Your task to perform on an android device: find photos in the google photos app Image 0: 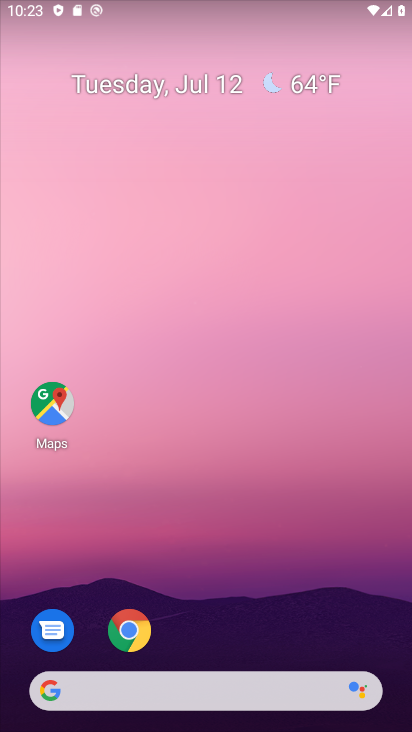
Step 0: drag from (374, 635) to (375, 104)
Your task to perform on an android device: find photos in the google photos app Image 1: 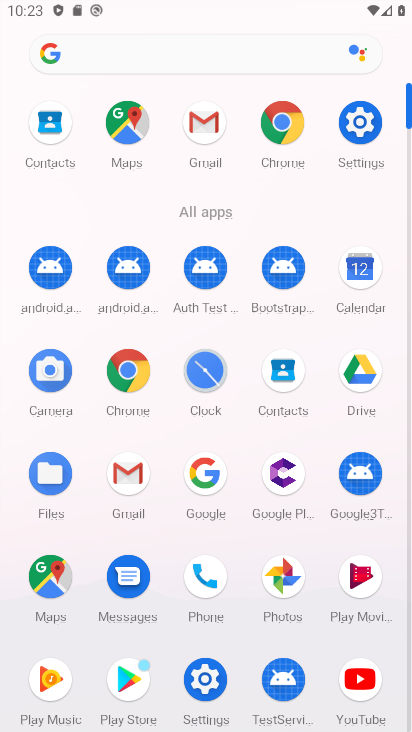
Step 1: click (287, 572)
Your task to perform on an android device: find photos in the google photos app Image 2: 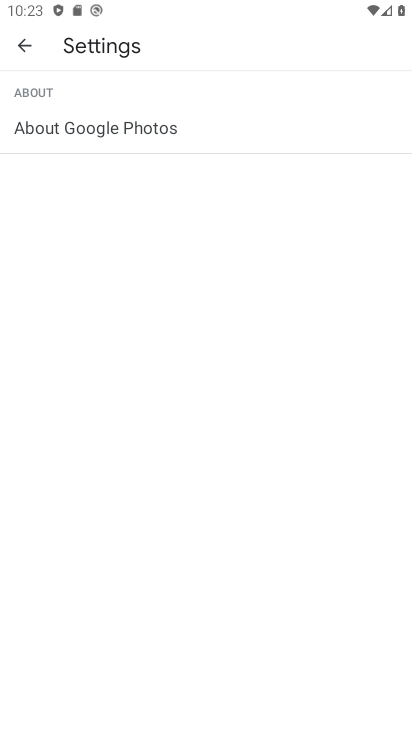
Step 2: press back button
Your task to perform on an android device: find photos in the google photos app Image 3: 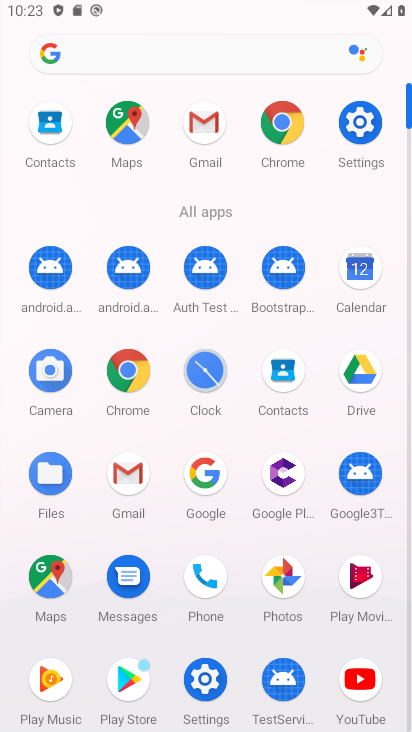
Step 3: click (280, 584)
Your task to perform on an android device: find photos in the google photos app Image 4: 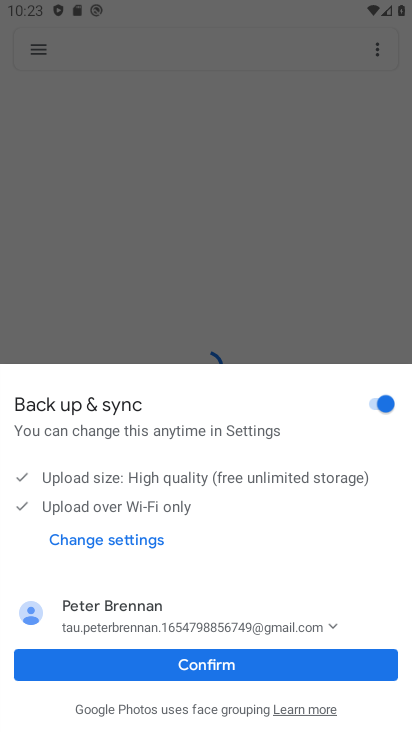
Step 4: click (325, 667)
Your task to perform on an android device: find photos in the google photos app Image 5: 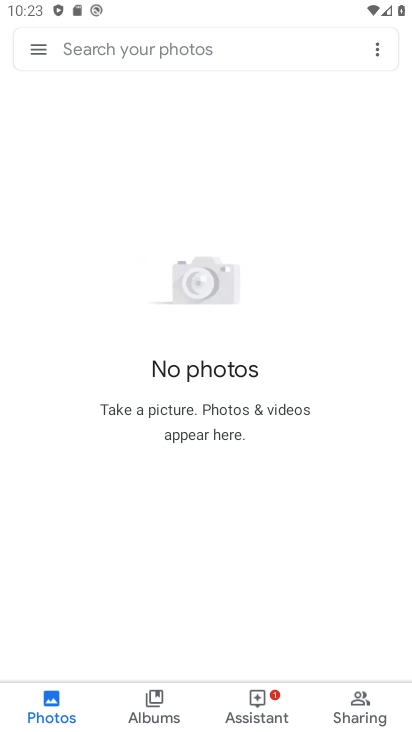
Step 5: task complete